Your task to perform on an android device: Open the map Image 0: 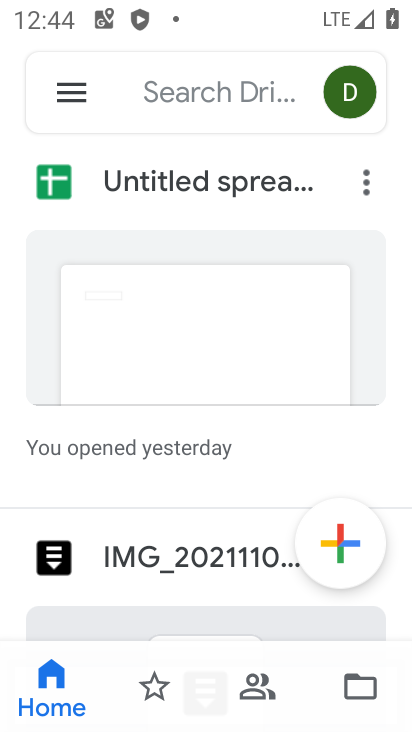
Step 0: press home button
Your task to perform on an android device: Open the map Image 1: 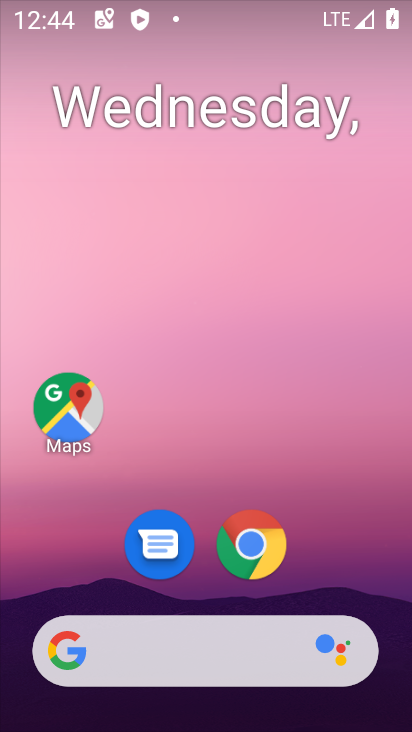
Step 1: drag from (382, 628) to (333, 42)
Your task to perform on an android device: Open the map Image 2: 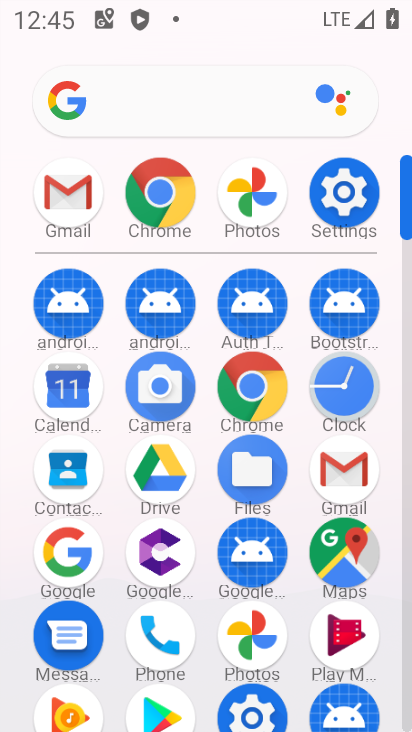
Step 2: click (347, 564)
Your task to perform on an android device: Open the map Image 3: 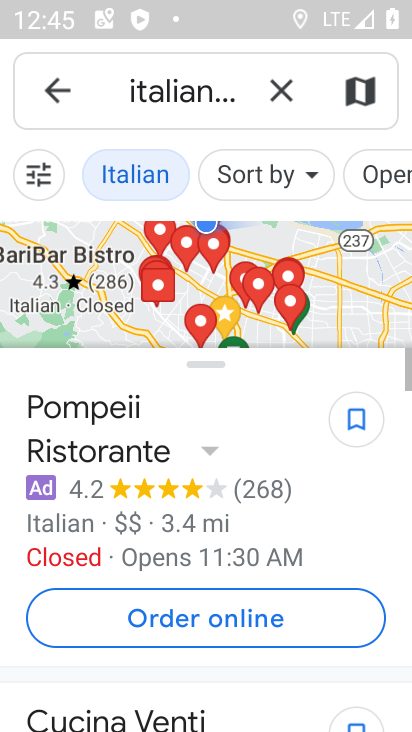
Step 3: click (281, 87)
Your task to perform on an android device: Open the map Image 4: 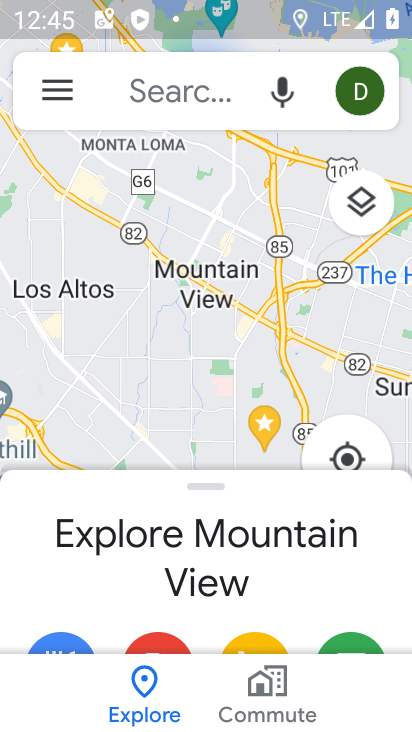
Step 4: task complete